Your task to perform on an android device: refresh tabs in the chrome app Image 0: 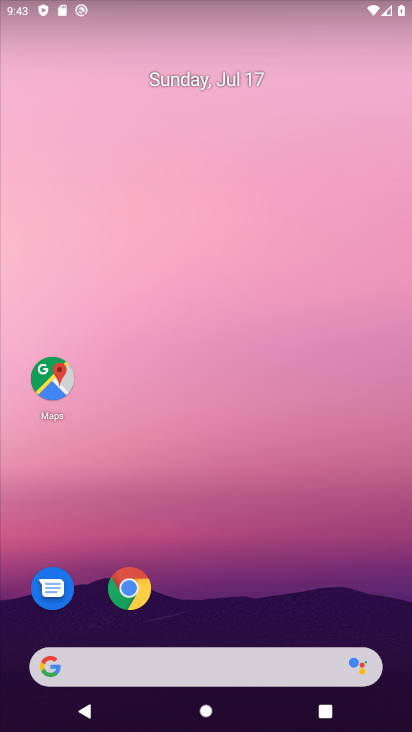
Step 0: drag from (250, 620) to (218, 85)
Your task to perform on an android device: refresh tabs in the chrome app Image 1: 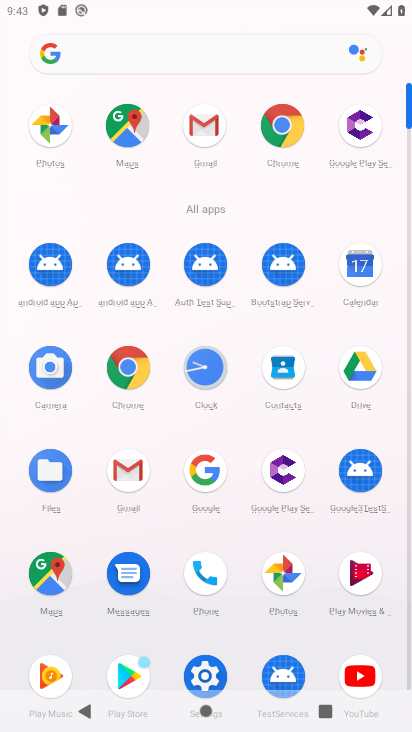
Step 1: click (288, 151)
Your task to perform on an android device: refresh tabs in the chrome app Image 2: 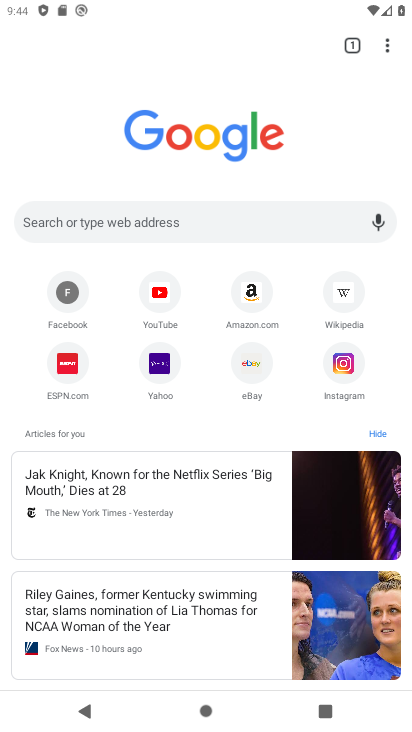
Step 2: click (392, 49)
Your task to perform on an android device: refresh tabs in the chrome app Image 3: 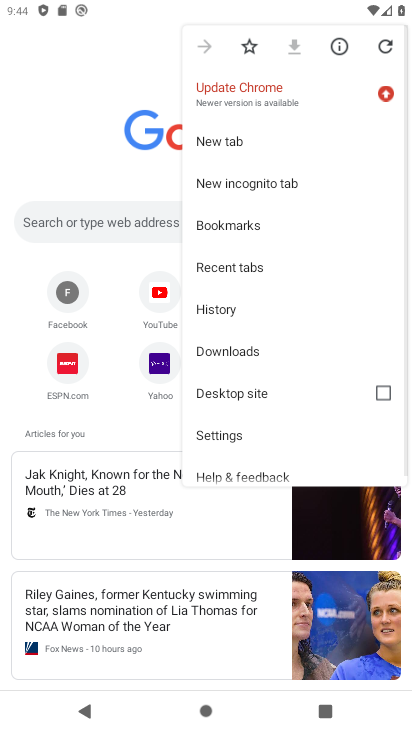
Step 3: click (382, 47)
Your task to perform on an android device: refresh tabs in the chrome app Image 4: 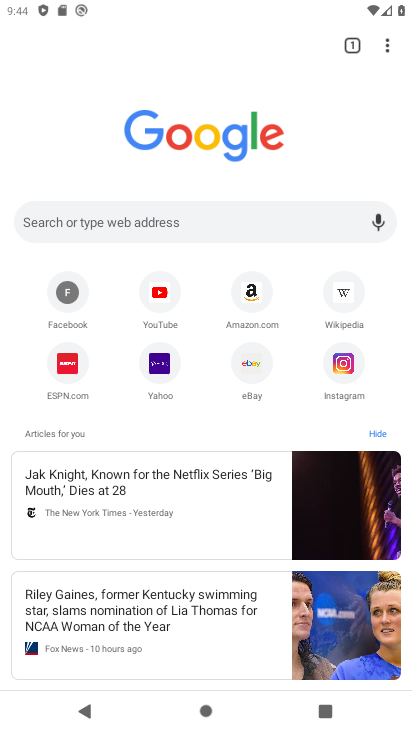
Step 4: task complete